Your task to perform on an android device: open a bookmark in the chrome app Image 0: 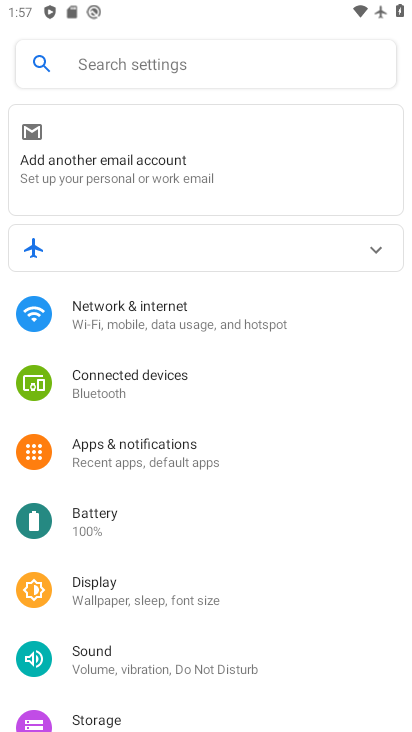
Step 0: press home button
Your task to perform on an android device: open a bookmark in the chrome app Image 1: 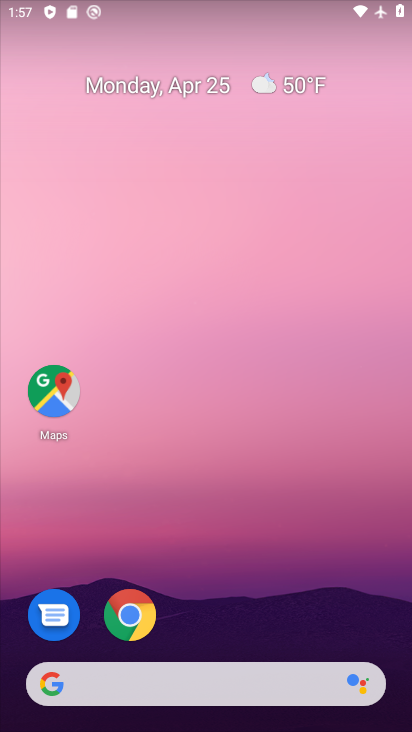
Step 1: click (130, 615)
Your task to perform on an android device: open a bookmark in the chrome app Image 2: 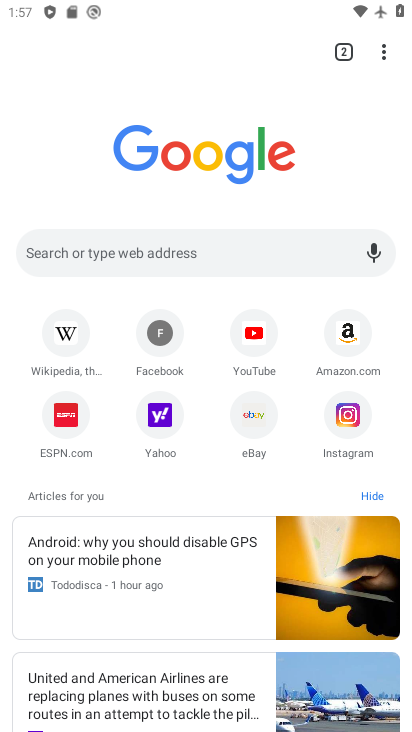
Step 2: click (386, 52)
Your task to perform on an android device: open a bookmark in the chrome app Image 3: 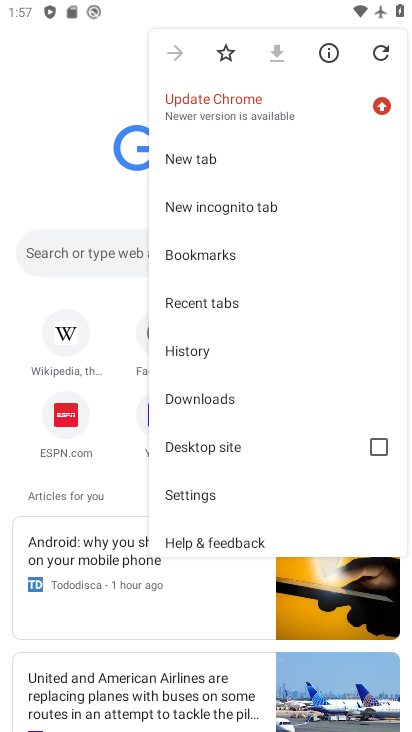
Step 3: click (229, 258)
Your task to perform on an android device: open a bookmark in the chrome app Image 4: 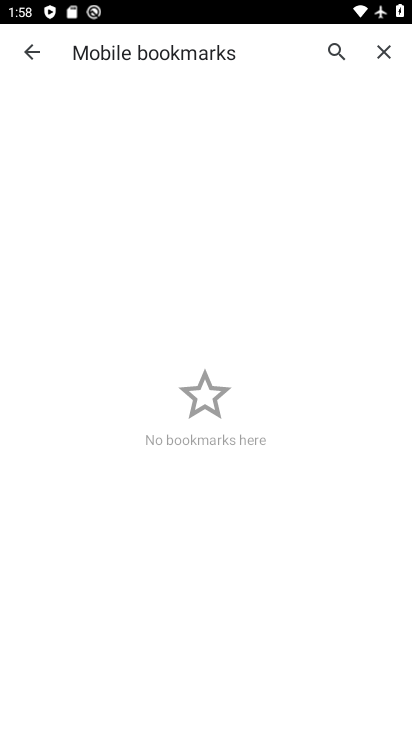
Step 4: task complete